Your task to perform on an android device: Open Youtube and go to the subscriptions tab Image 0: 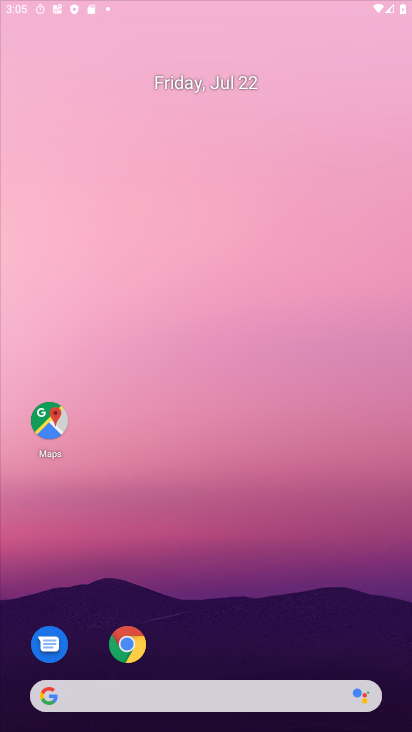
Step 0: press home button
Your task to perform on an android device: Open Youtube and go to the subscriptions tab Image 1: 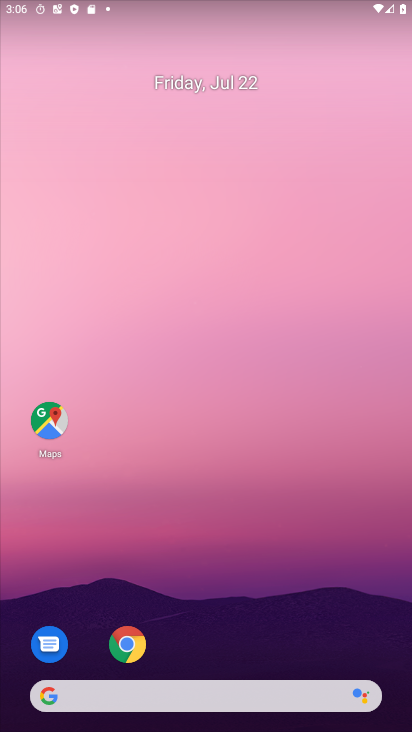
Step 1: drag from (247, 644) to (239, 99)
Your task to perform on an android device: Open Youtube and go to the subscriptions tab Image 2: 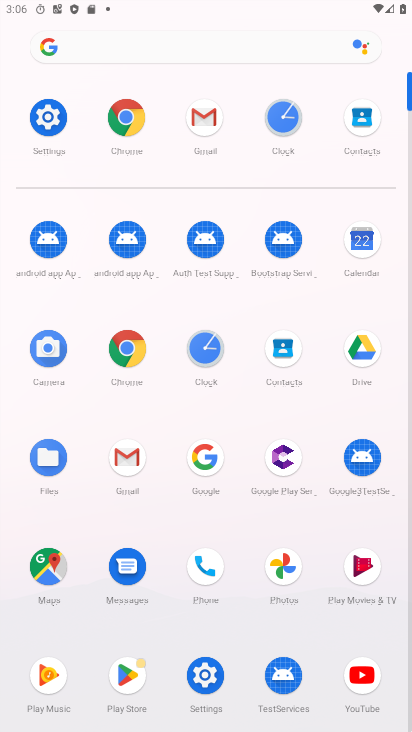
Step 2: click (361, 683)
Your task to perform on an android device: Open Youtube and go to the subscriptions tab Image 3: 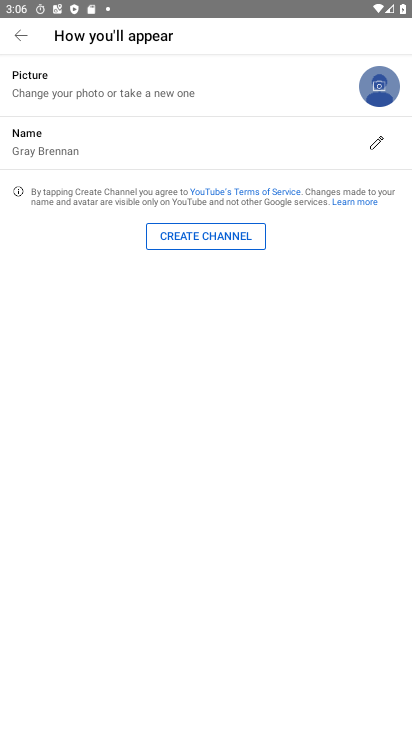
Step 3: click (17, 34)
Your task to perform on an android device: Open Youtube and go to the subscriptions tab Image 4: 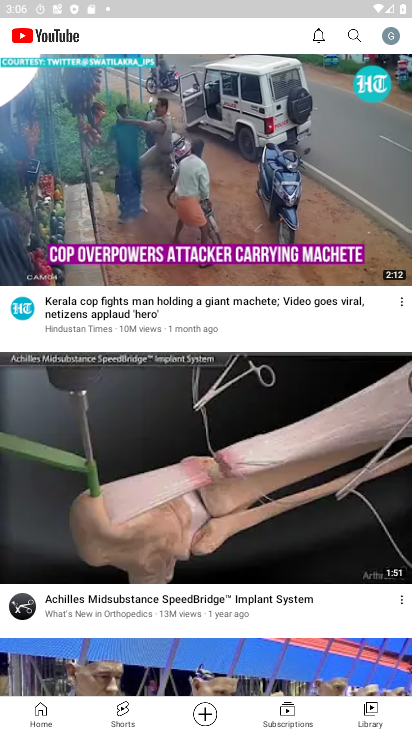
Step 4: click (287, 718)
Your task to perform on an android device: Open Youtube and go to the subscriptions tab Image 5: 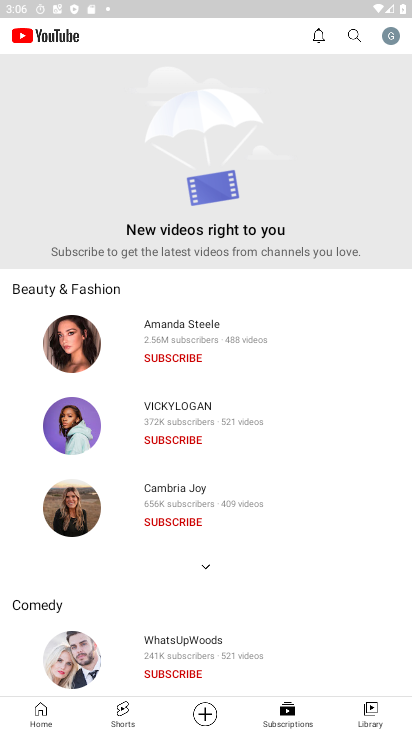
Step 5: task complete